Your task to perform on an android device: delete a single message in the gmail app Image 0: 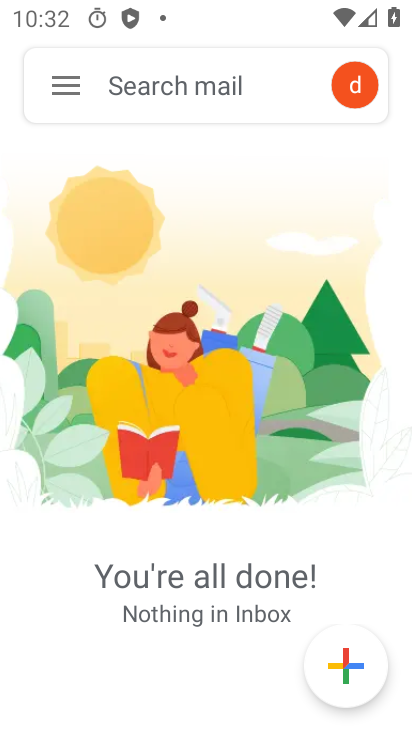
Step 0: press home button
Your task to perform on an android device: delete a single message in the gmail app Image 1: 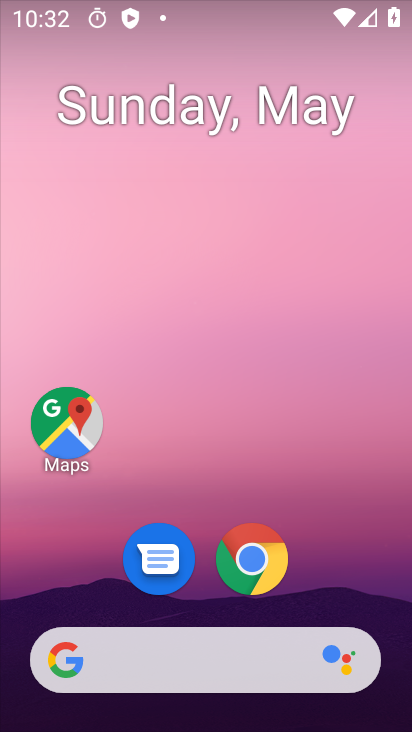
Step 1: drag from (382, 565) to (384, 116)
Your task to perform on an android device: delete a single message in the gmail app Image 2: 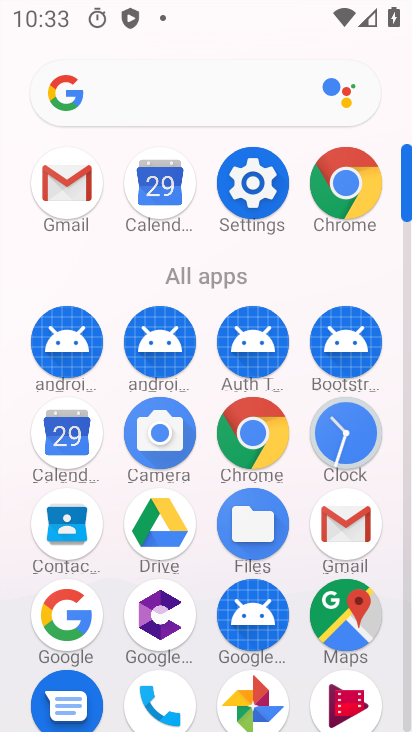
Step 2: drag from (307, 646) to (280, 286)
Your task to perform on an android device: delete a single message in the gmail app Image 3: 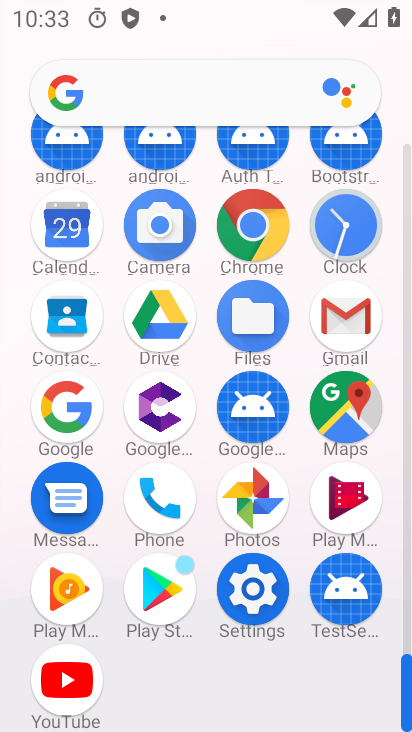
Step 3: drag from (207, 275) to (195, 645)
Your task to perform on an android device: delete a single message in the gmail app Image 4: 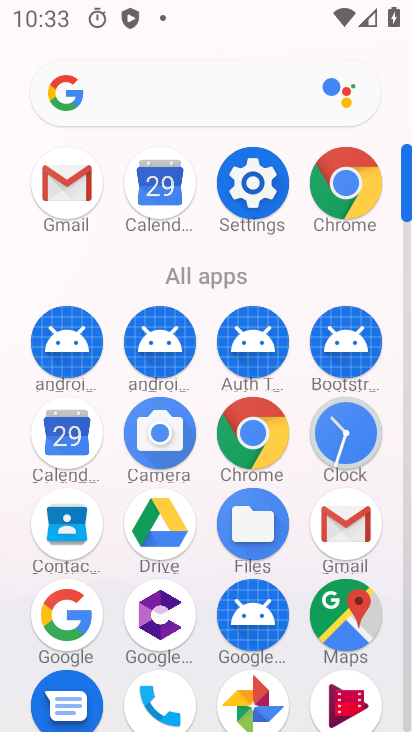
Step 4: click (328, 543)
Your task to perform on an android device: delete a single message in the gmail app Image 5: 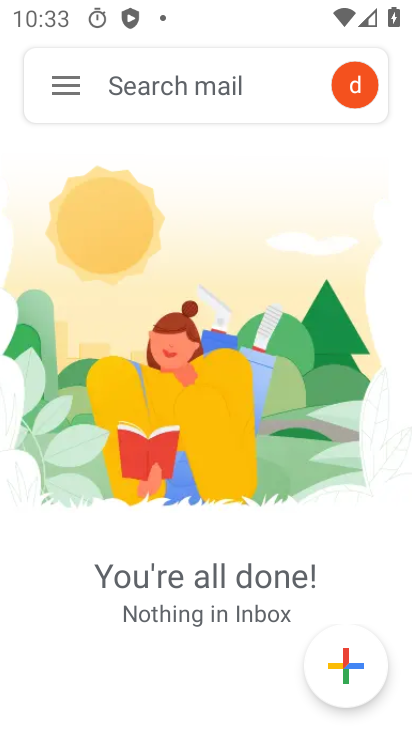
Step 5: click (71, 93)
Your task to perform on an android device: delete a single message in the gmail app Image 6: 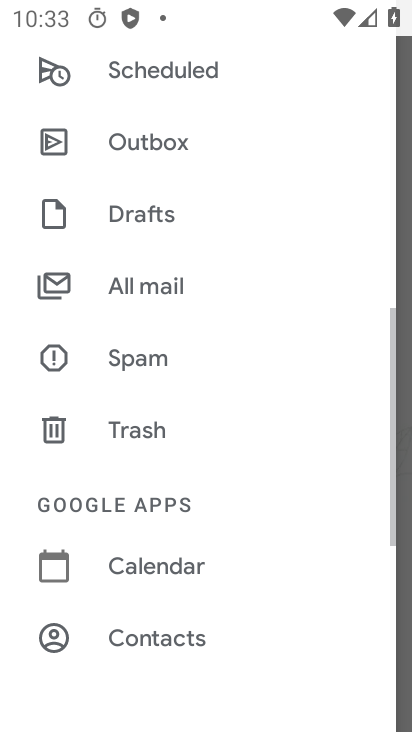
Step 6: click (154, 300)
Your task to perform on an android device: delete a single message in the gmail app Image 7: 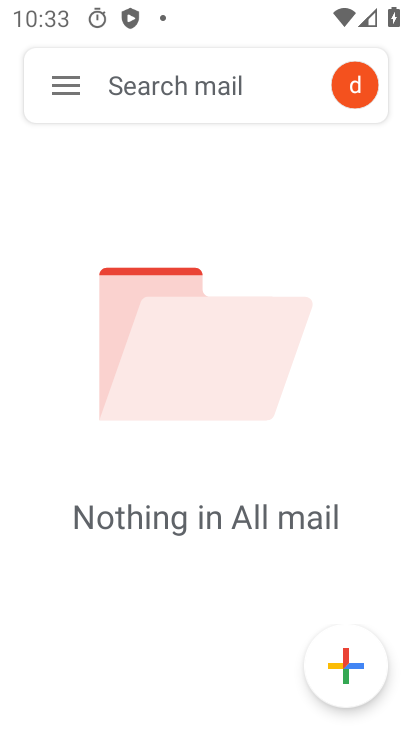
Step 7: task complete